Your task to perform on an android device: Open the calendar and show me this week's events Image 0: 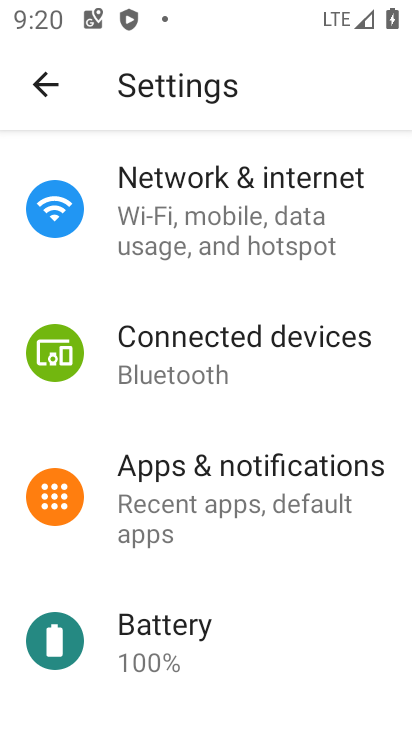
Step 0: press home button
Your task to perform on an android device: Open the calendar and show me this week's events Image 1: 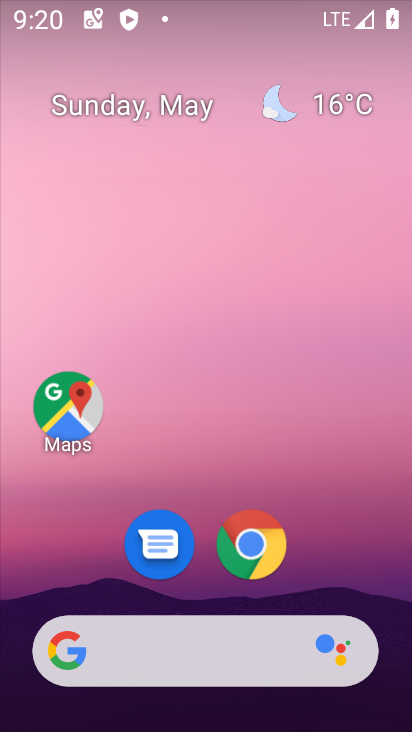
Step 1: drag from (303, 571) to (226, 13)
Your task to perform on an android device: Open the calendar and show me this week's events Image 2: 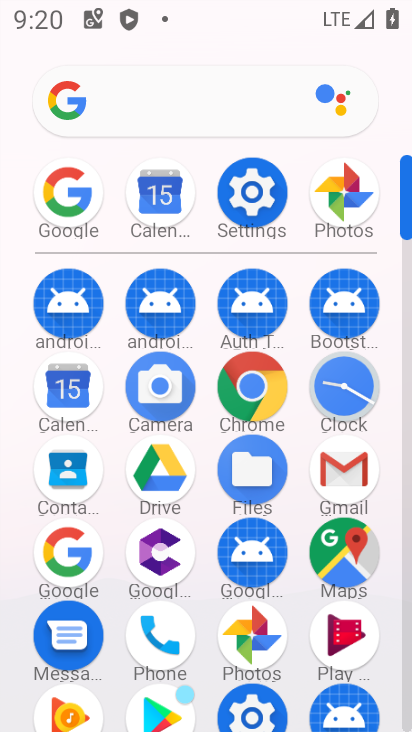
Step 2: click (54, 490)
Your task to perform on an android device: Open the calendar and show me this week's events Image 3: 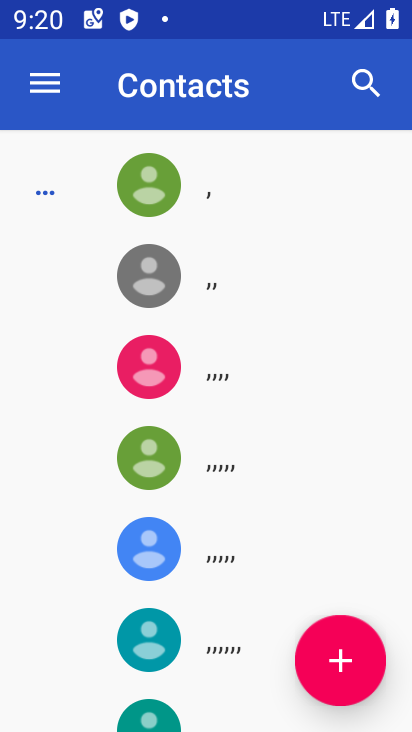
Step 3: press home button
Your task to perform on an android device: Open the calendar and show me this week's events Image 4: 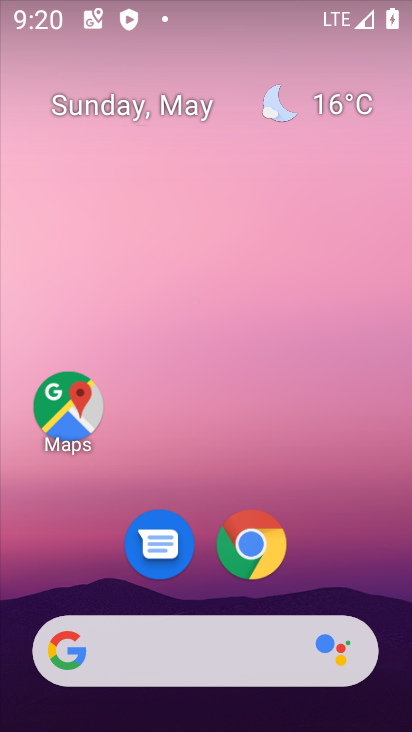
Step 4: drag from (333, 575) to (252, 251)
Your task to perform on an android device: Open the calendar and show me this week's events Image 5: 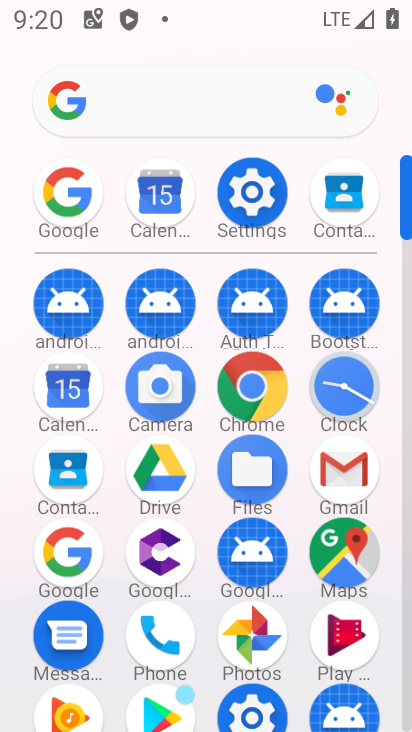
Step 5: click (247, 206)
Your task to perform on an android device: Open the calendar and show me this week's events Image 6: 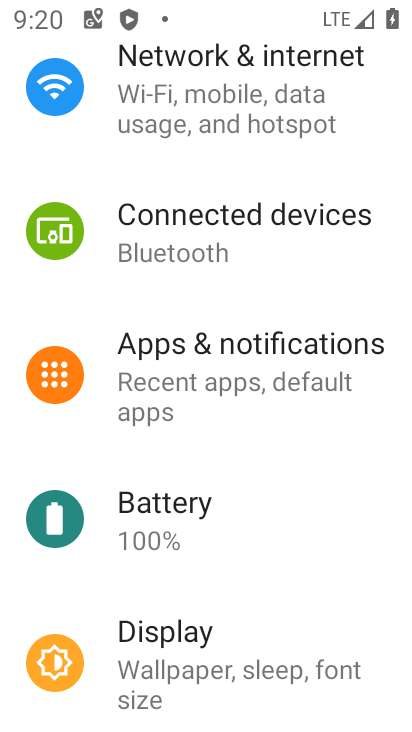
Step 6: press home button
Your task to perform on an android device: Open the calendar and show me this week's events Image 7: 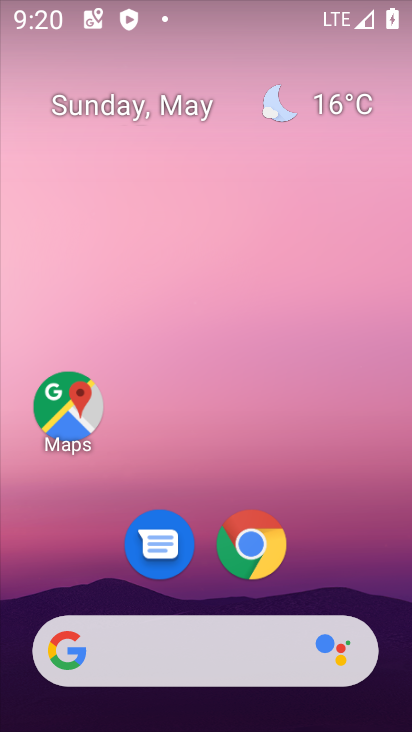
Step 7: drag from (313, 579) to (221, 99)
Your task to perform on an android device: Open the calendar and show me this week's events Image 8: 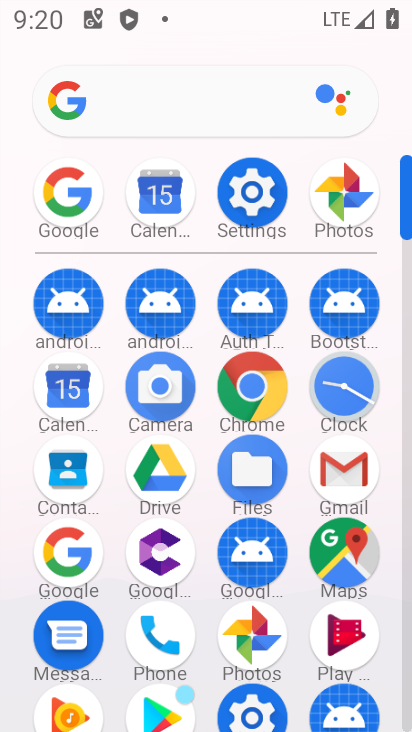
Step 8: click (55, 405)
Your task to perform on an android device: Open the calendar and show me this week's events Image 9: 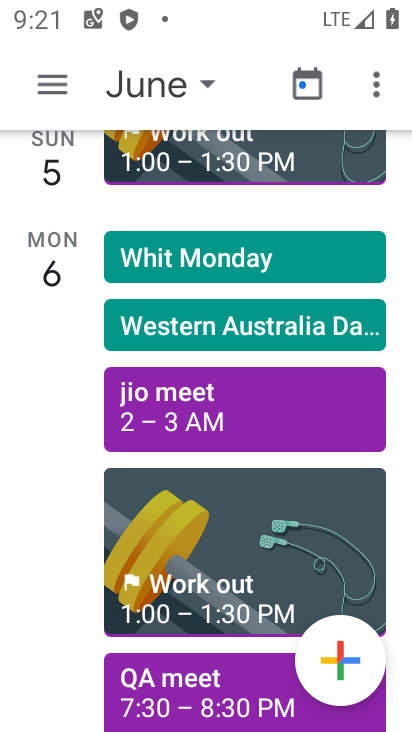
Step 9: drag from (56, 193) to (56, 150)
Your task to perform on an android device: Open the calendar and show me this week's events Image 10: 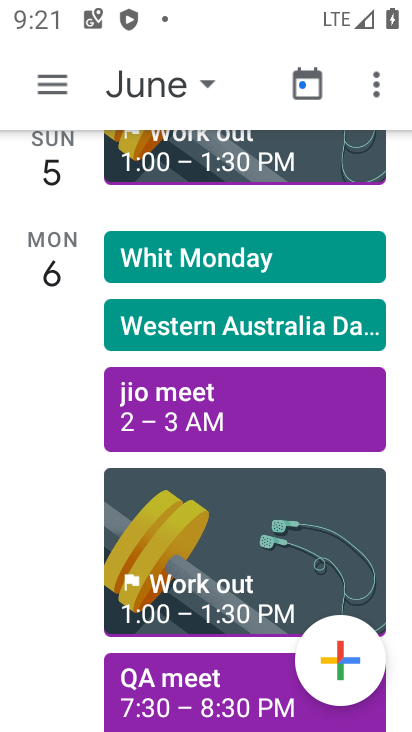
Step 10: click (45, 85)
Your task to perform on an android device: Open the calendar and show me this week's events Image 11: 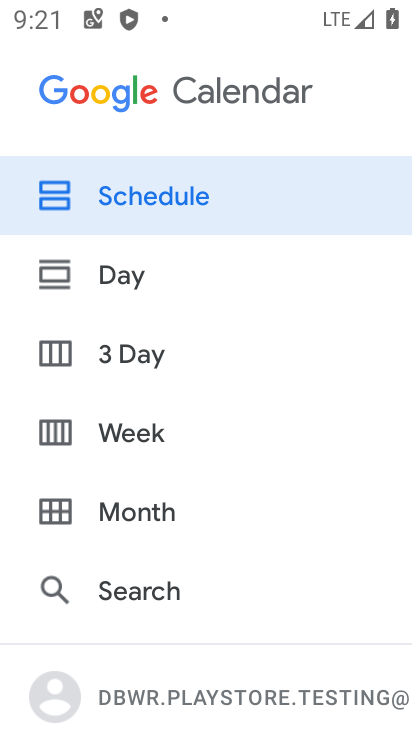
Step 11: click (121, 439)
Your task to perform on an android device: Open the calendar and show me this week's events Image 12: 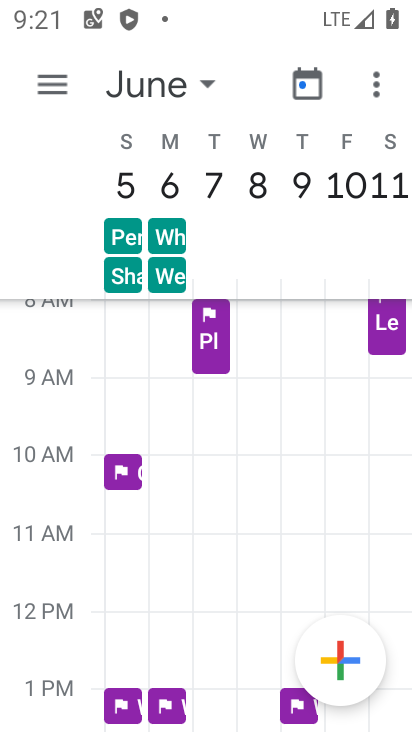
Step 12: click (173, 79)
Your task to perform on an android device: Open the calendar and show me this week's events Image 13: 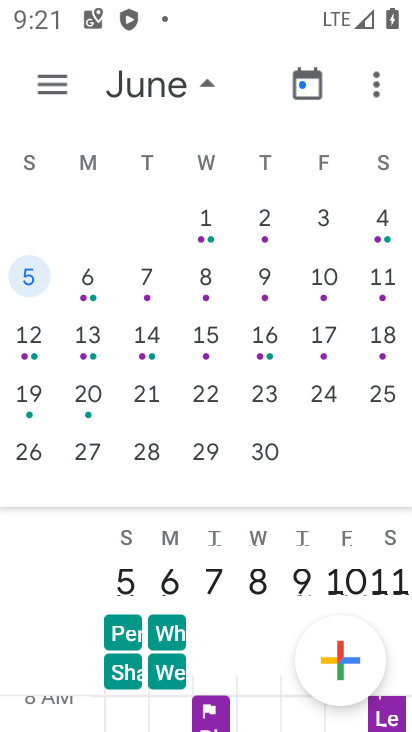
Step 13: drag from (105, 341) to (348, 367)
Your task to perform on an android device: Open the calendar and show me this week's events Image 14: 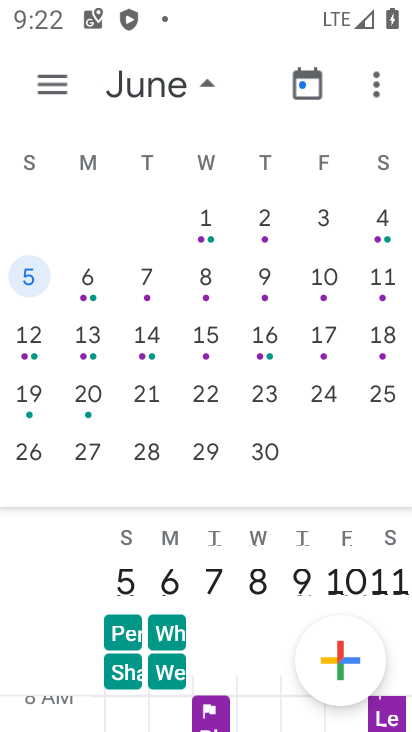
Step 14: click (29, 338)
Your task to perform on an android device: Open the calendar and show me this week's events Image 15: 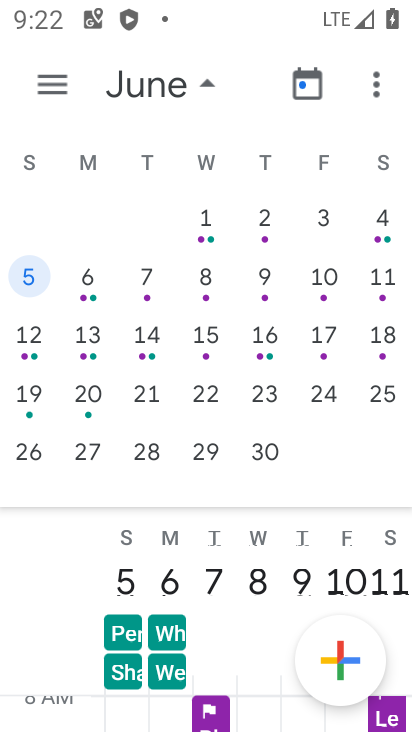
Step 15: click (29, 338)
Your task to perform on an android device: Open the calendar and show me this week's events Image 16: 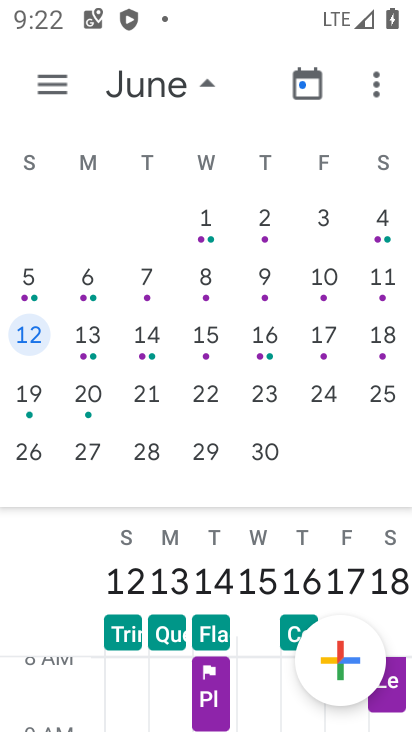
Step 16: task complete